Your task to perform on an android device: Open the Play Movies app and select the watchlist tab. Image 0: 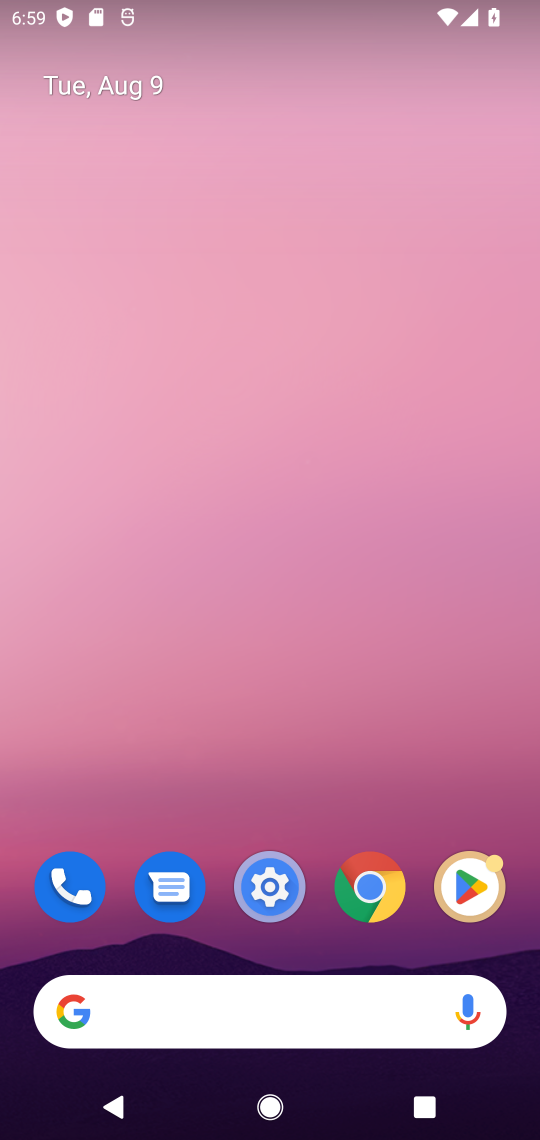
Step 0: click (369, 54)
Your task to perform on an android device: Open the Play Movies app and select the watchlist tab. Image 1: 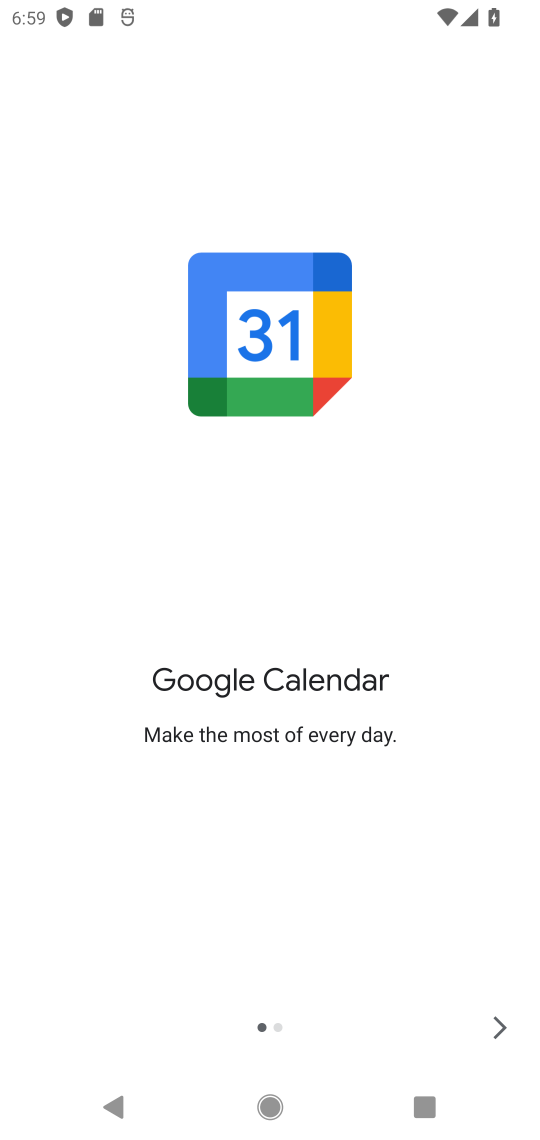
Step 1: task complete